Your task to perform on an android device: Go to Amazon Image 0: 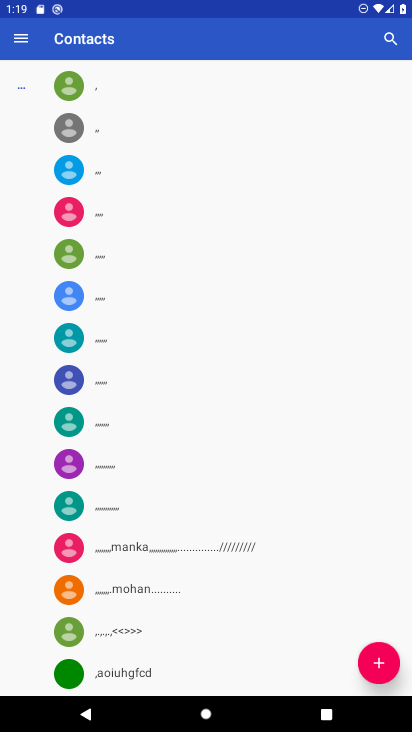
Step 0: press home button
Your task to perform on an android device: Go to Amazon Image 1: 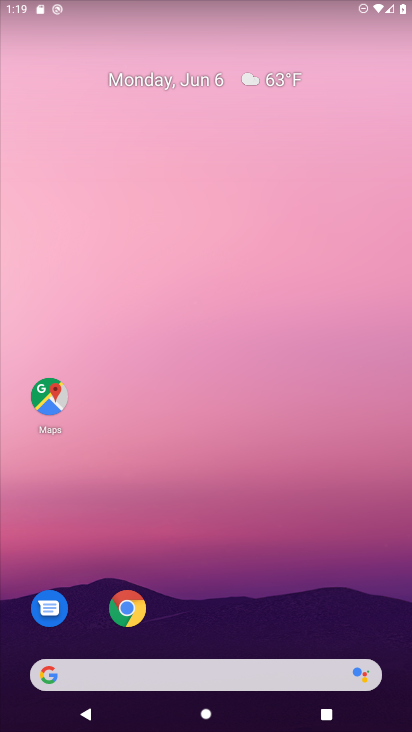
Step 1: click (135, 621)
Your task to perform on an android device: Go to Amazon Image 2: 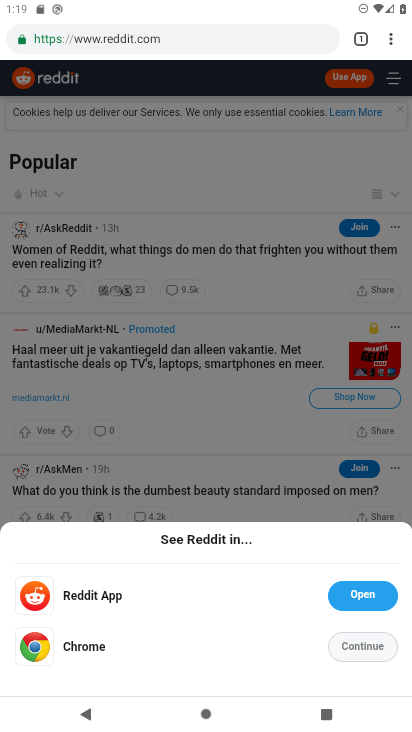
Step 2: click (354, 34)
Your task to perform on an android device: Go to Amazon Image 3: 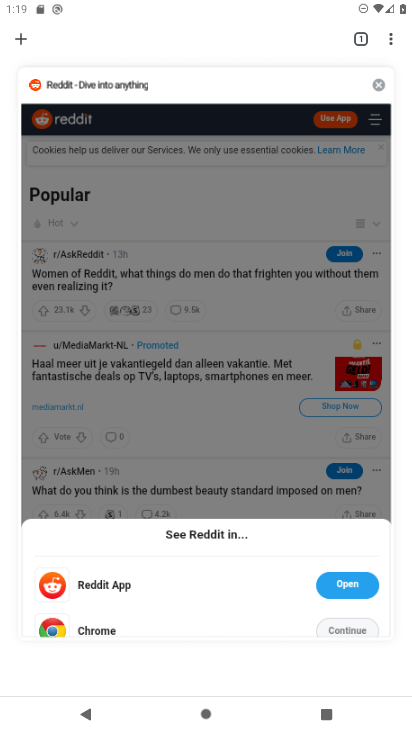
Step 3: click (21, 39)
Your task to perform on an android device: Go to Amazon Image 4: 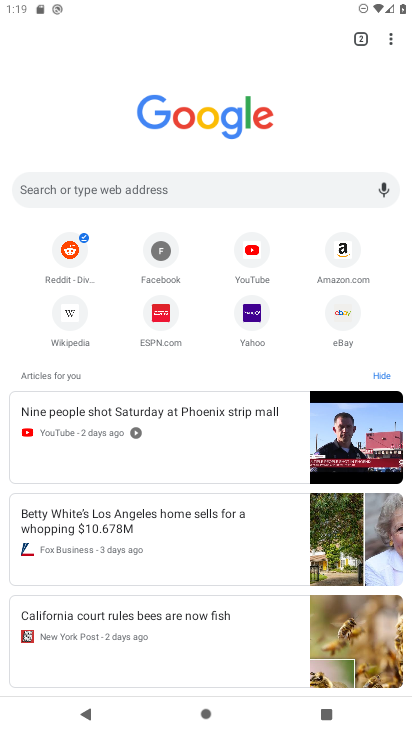
Step 4: click (345, 259)
Your task to perform on an android device: Go to Amazon Image 5: 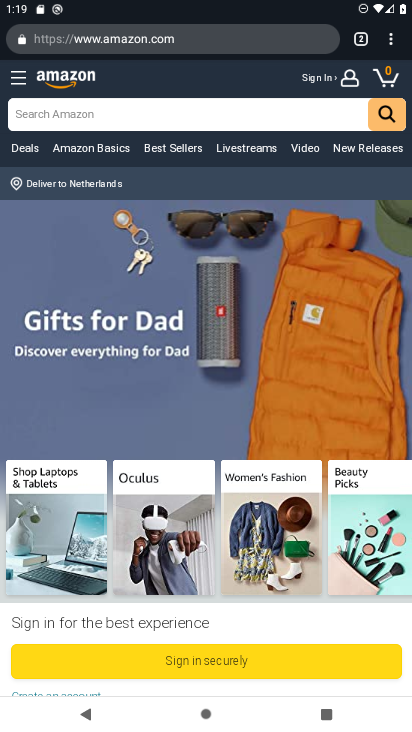
Step 5: task complete